Your task to perform on an android device: Open Google Maps and go to "Timeline" Image 0: 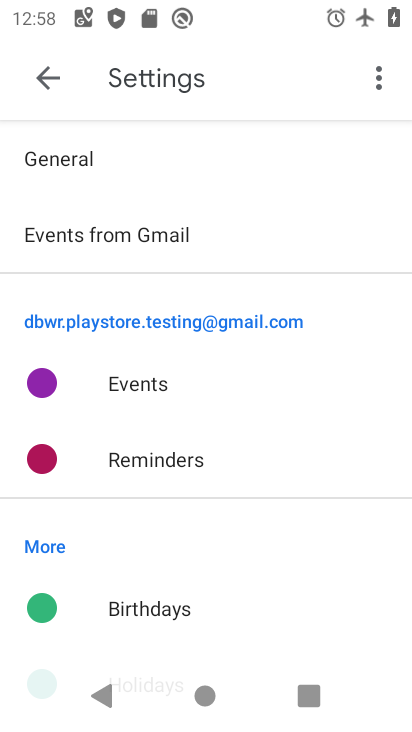
Step 0: press home button
Your task to perform on an android device: Open Google Maps and go to "Timeline" Image 1: 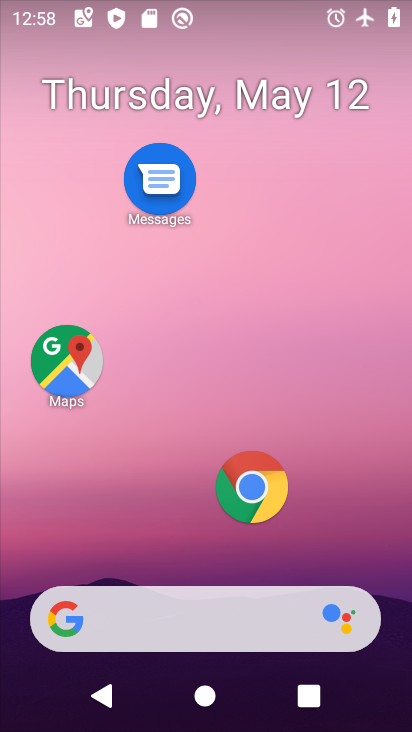
Step 1: click (184, 508)
Your task to perform on an android device: Open Google Maps and go to "Timeline" Image 2: 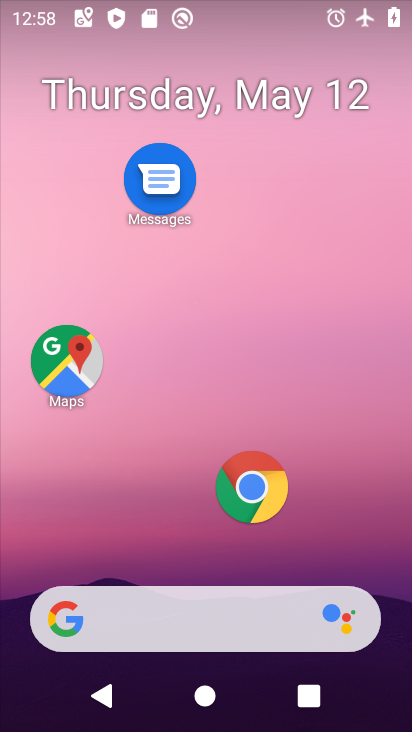
Step 2: click (78, 384)
Your task to perform on an android device: Open Google Maps and go to "Timeline" Image 3: 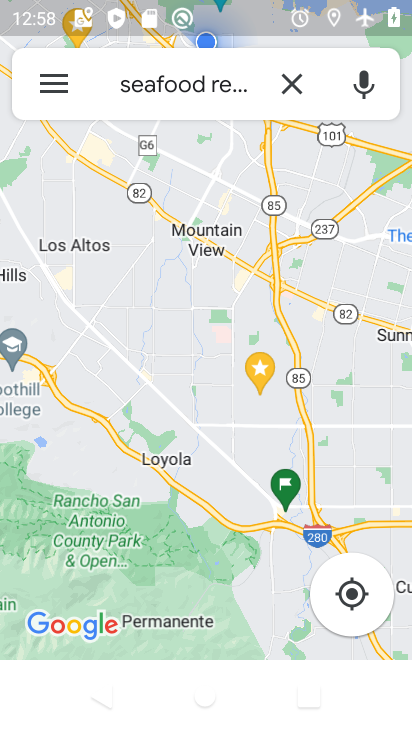
Step 3: click (48, 72)
Your task to perform on an android device: Open Google Maps and go to "Timeline" Image 4: 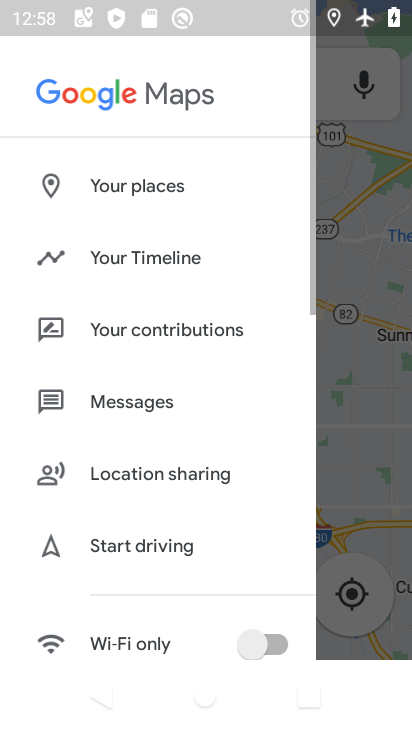
Step 4: click (133, 266)
Your task to perform on an android device: Open Google Maps and go to "Timeline" Image 5: 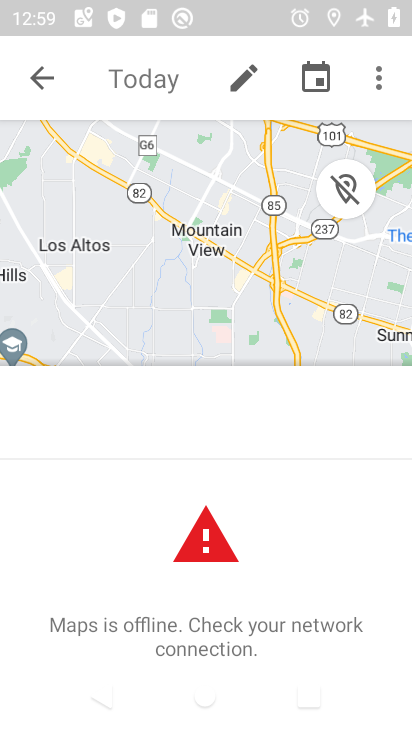
Step 5: task complete